Your task to perform on an android device: Open battery settings Image 0: 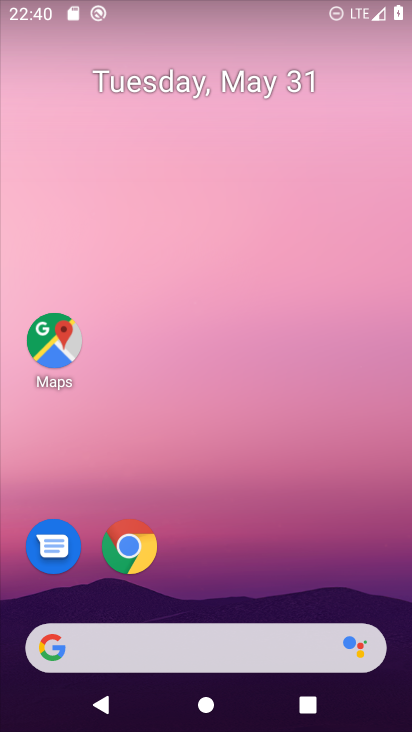
Step 0: drag from (397, 699) to (364, 99)
Your task to perform on an android device: Open battery settings Image 1: 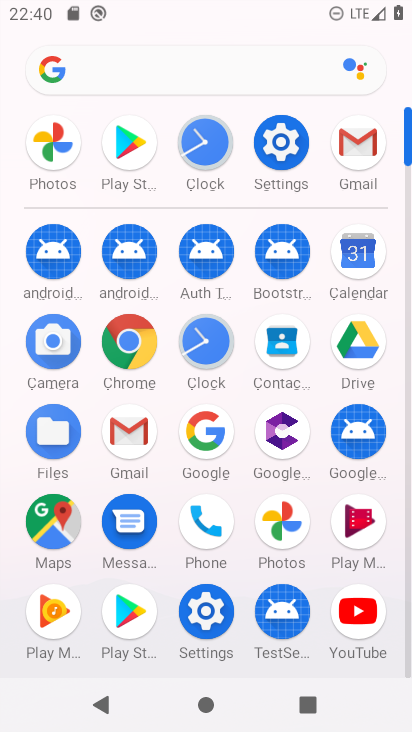
Step 1: click (270, 153)
Your task to perform on an android device: Open battery settings Image 2: 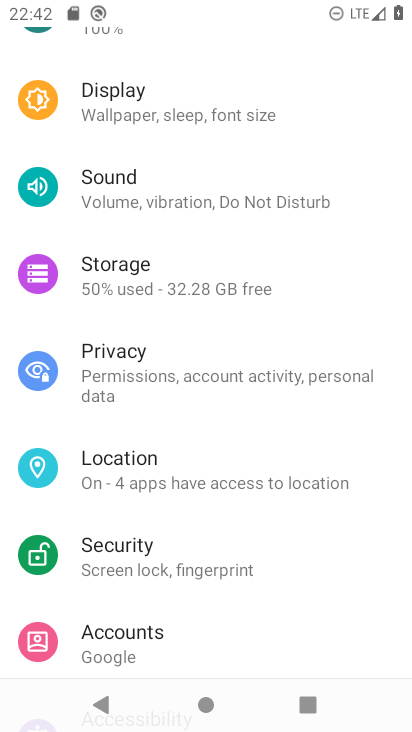
Step 2: drag from (262, 594) to (244, 367)
Your task to perform on an android device: Open battery settings Image 3: 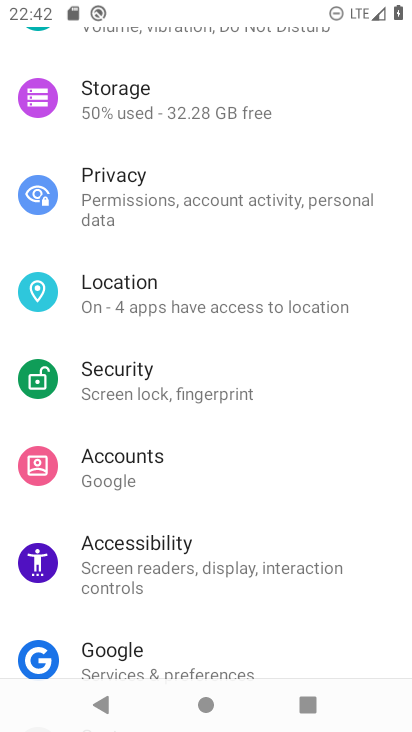
Step 3: drag from (288, 148) to (278, 632)
Your task to perform on an android device: Open battery settings Image 4: 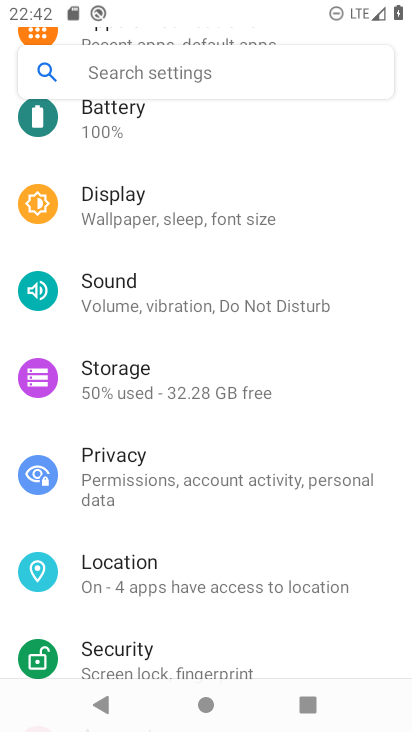
Step 4: click (73, 126)
Your task to perform on an android device: Open battery settings Image 5: 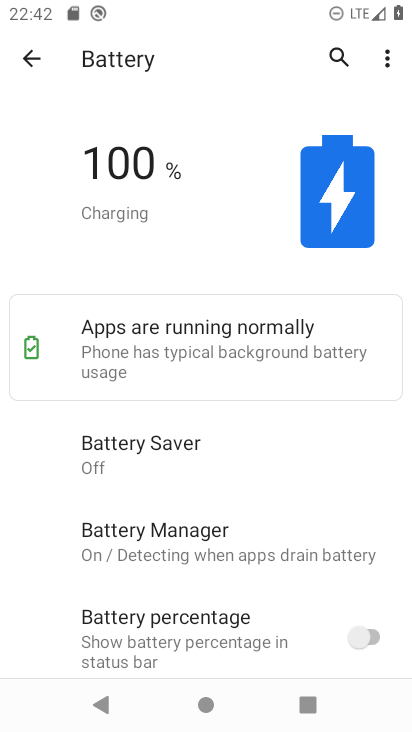
Step 5: click (381, 57)
Your task to perform on an android device: Open battery settings Image 6: 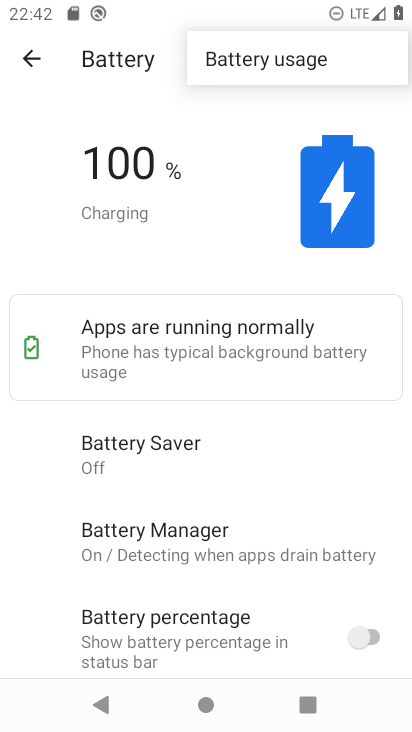
Step 6: task complete